Your task to perform on an android device: check battery use Image 0: 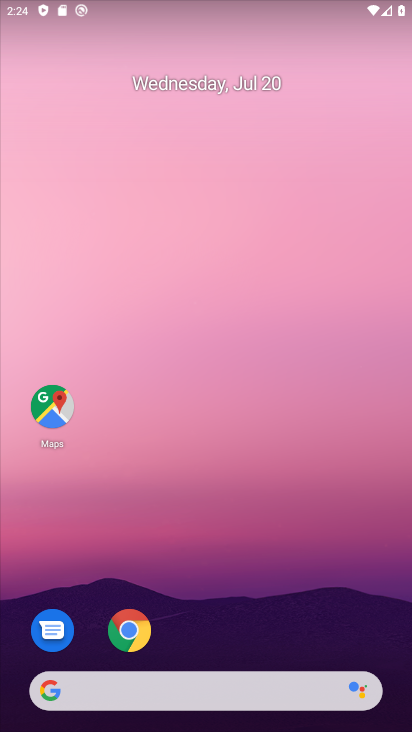
Step 0: drag from (252, 641) to (190, 185)
Your task to perform on an android device: check battery use Image 1: 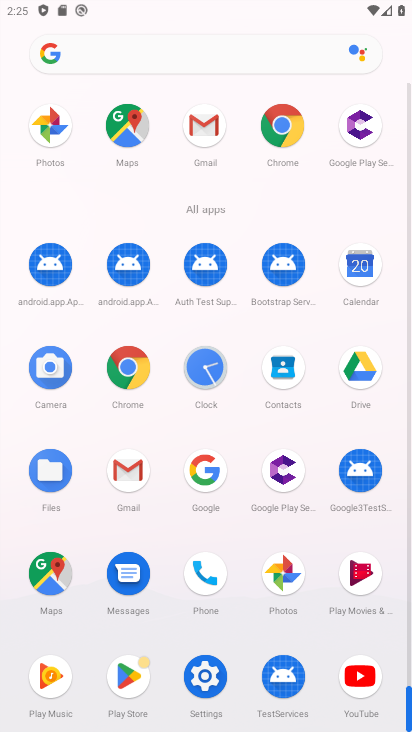
Step 1: click (217, 667)
Your task to perform on an android device: check battery use Image 2: 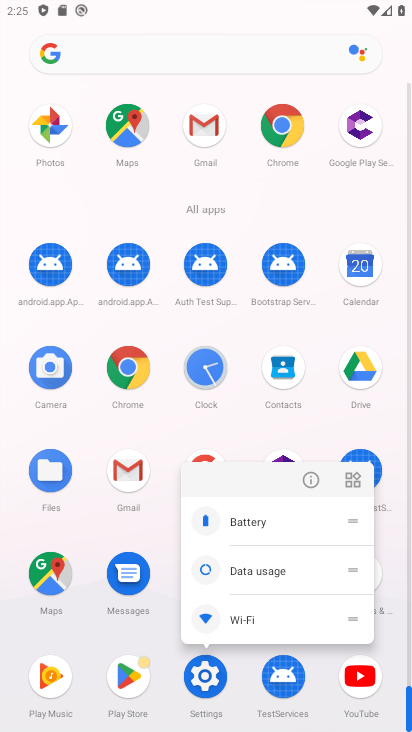
Step 2: drag from (190, 661) to (217, 689)
Your task to perform on an android device: check battery use Image 3: 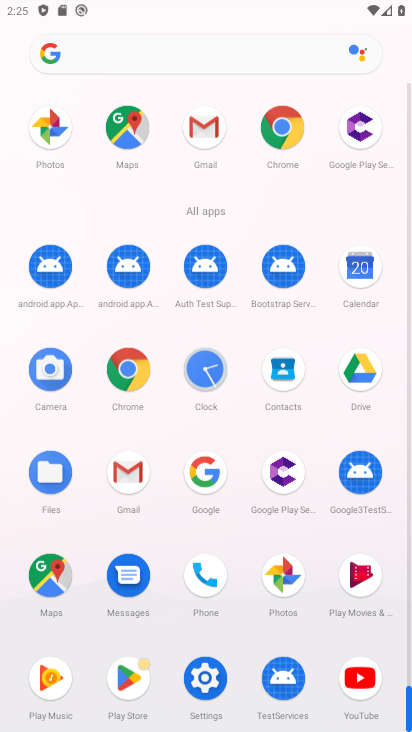
Step 3: click (215, 690)
Your task to perform on an android device: check battery use Image 4: 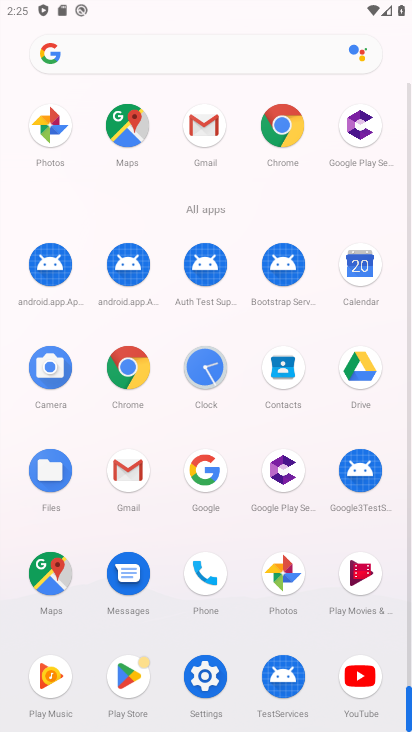
Step 4: click (205, 677)
Your task to perform on an android device: check battery use Image 5: 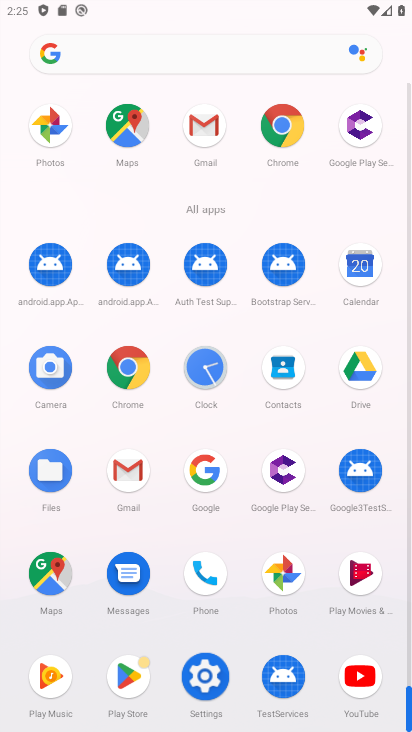
Step 5: click (206, 658)
Your task to perform on an android device: check battery use Image 6: 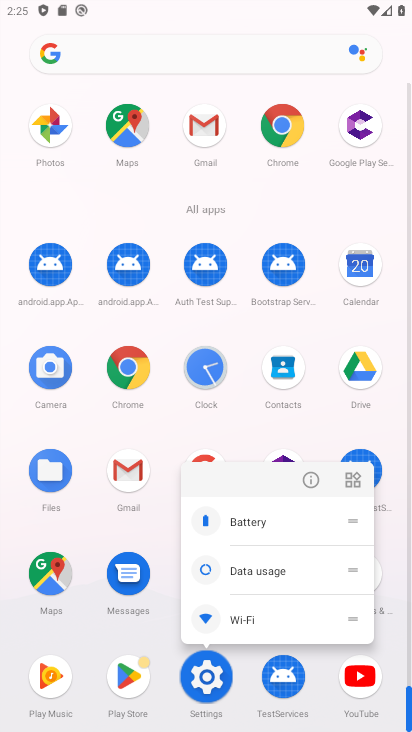
Step 6: click (205, 662)
Your task to perform on an android device: check battery use Image 7: 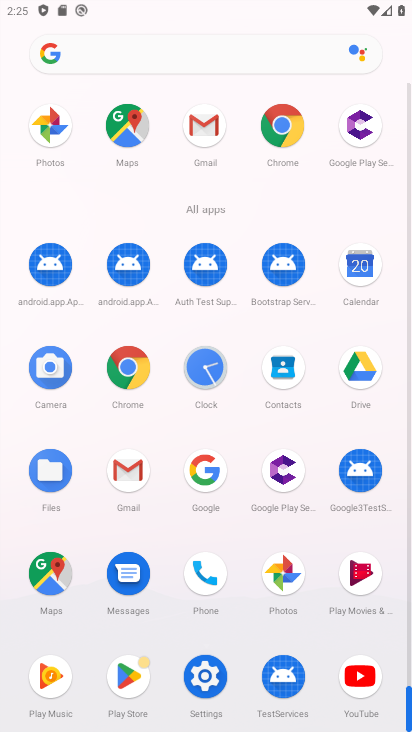
Step 7: click (198, 674)
Your task to perform on an android device: check battery use Image 8: 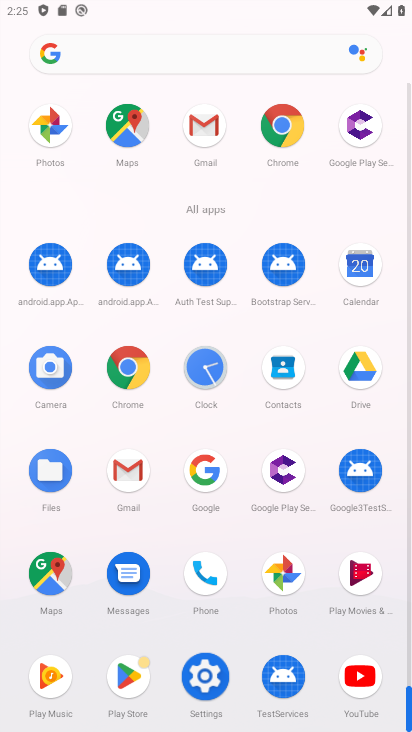
Step 8: click (201, 680)
Your task to perform on an android device: check battery use Image 9: 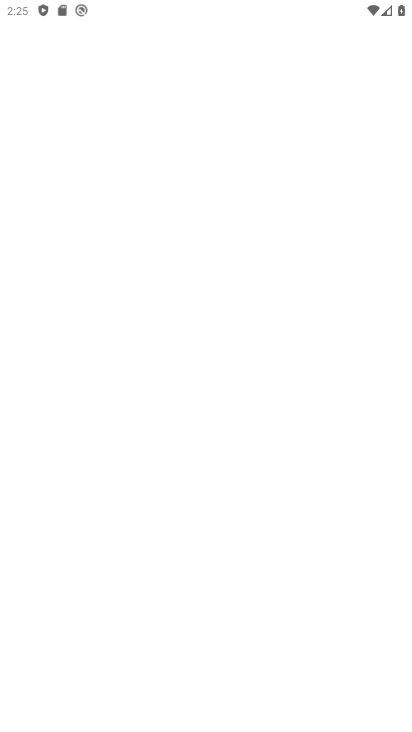
Step 9: click (212, 676)
Your task to perform on an android device: check battery use Image 10: 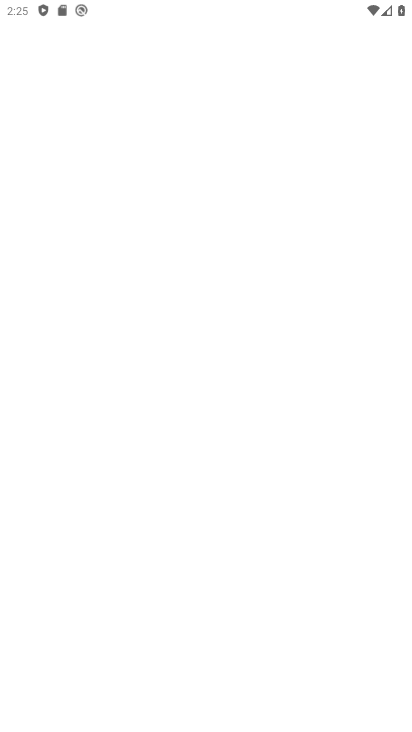
Step 10: click (227, 663)
Your task to perform on an android device: check battery use Image 11: 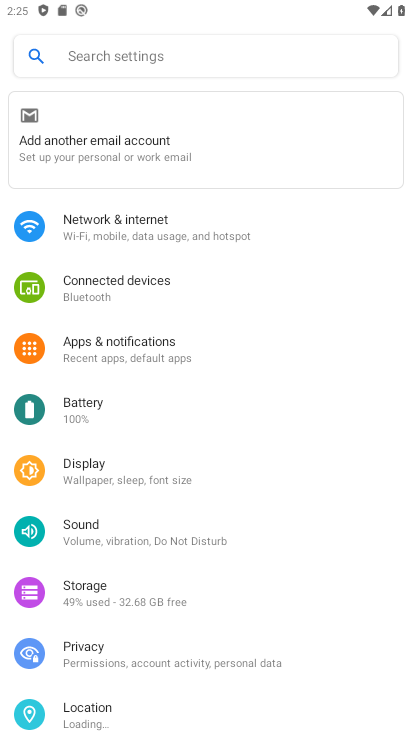
Step 11: click (76, 397)
Your task to perform on an android device: check battery use Image 12: 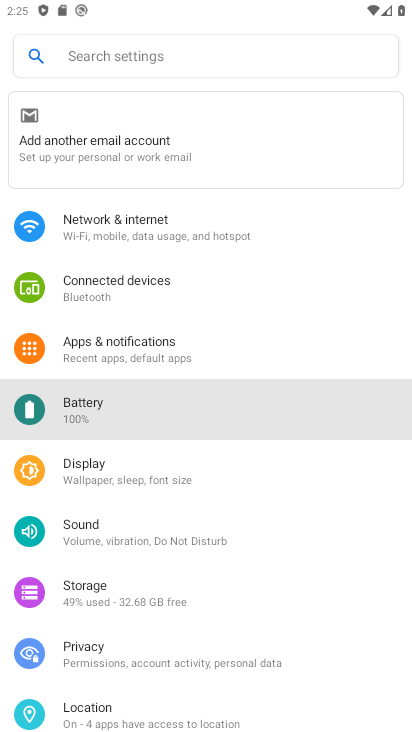
Step 12: click (74, 397)
Your task to perform on an android device: check battery use Image 13: 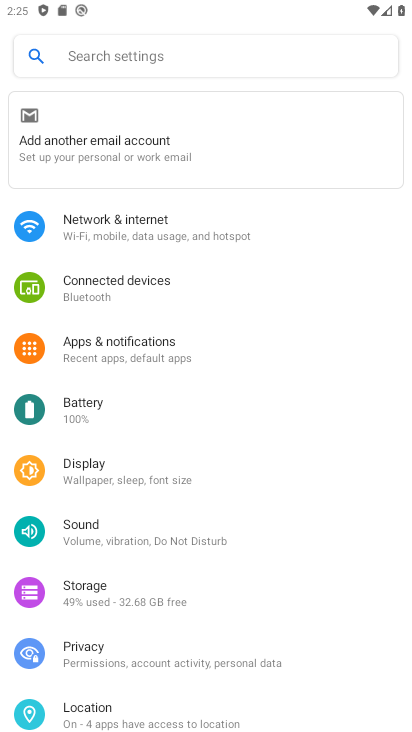
Step 13: click (73, 399)
Your task to perform on an android device: check battery use Image 14: 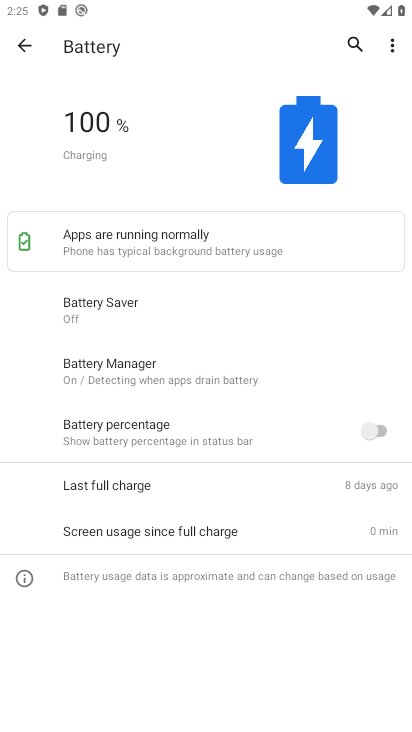
Step 14: task complete